Your task to perform on an android device: Open Google Chrome and open the bookmarks view Image 0: 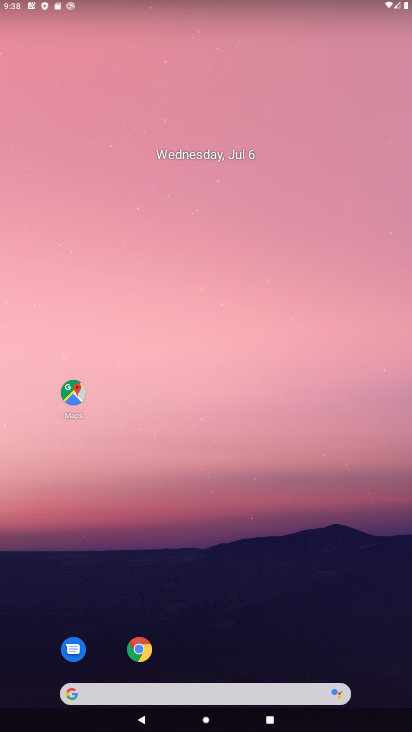
Step 0: click (142, 647)
Your task to perform on an android device: Open Google Chrome and open the bookmarks view Image 1: 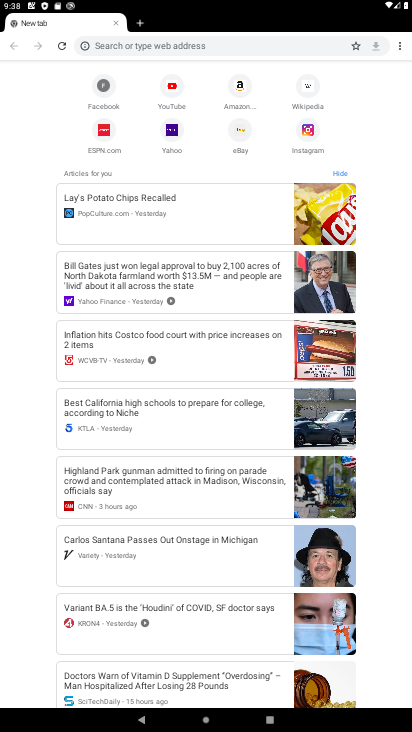
Step 1: click (402, 44)
Your task to perform on an android device: Open Google Chrome and open the bookmarks view Image 2: 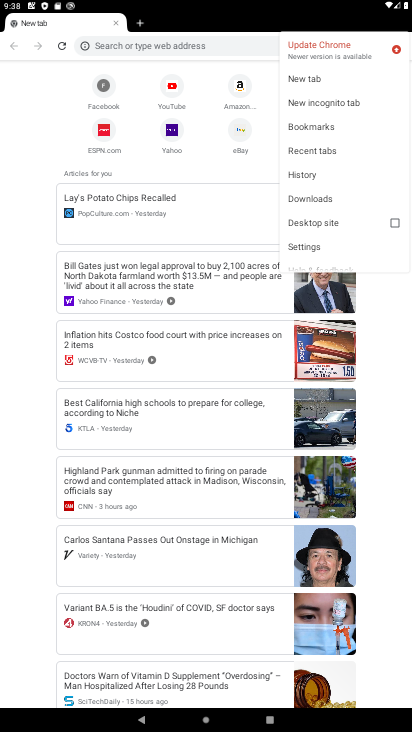
Step 2: click (332, 126)
Your task to perform on an android device: Open Google Chrome and open the bookmarks view Image 3: 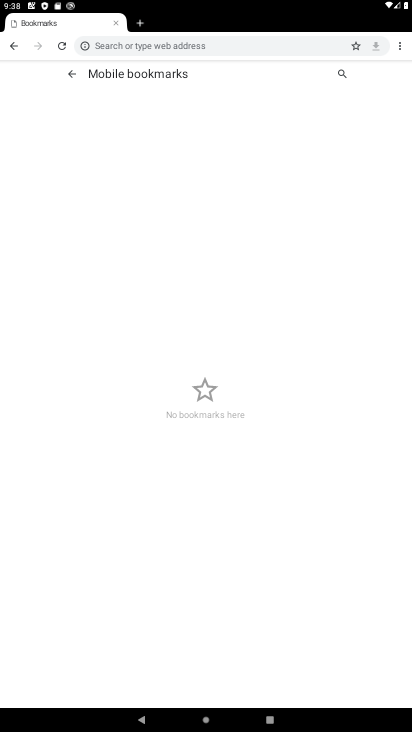
Step 3: task complete